Your task to perform on an android device: visit the assistant section in the google photos Image 0: 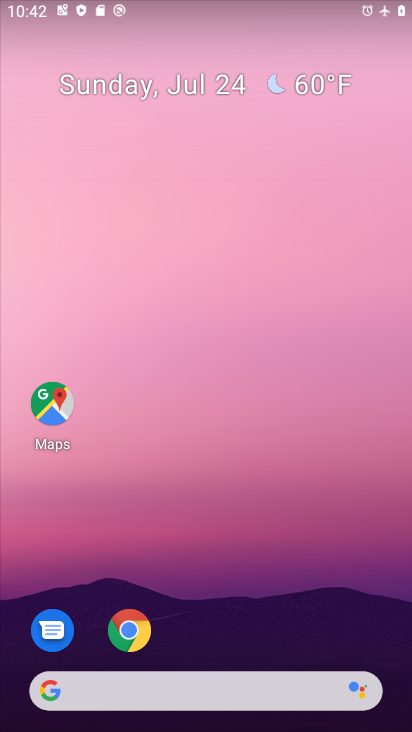
Step 0: drag from (209, 646) to (224, 95)
Your task to perform on an android device: visit the assistant section in the google photos Image 1: 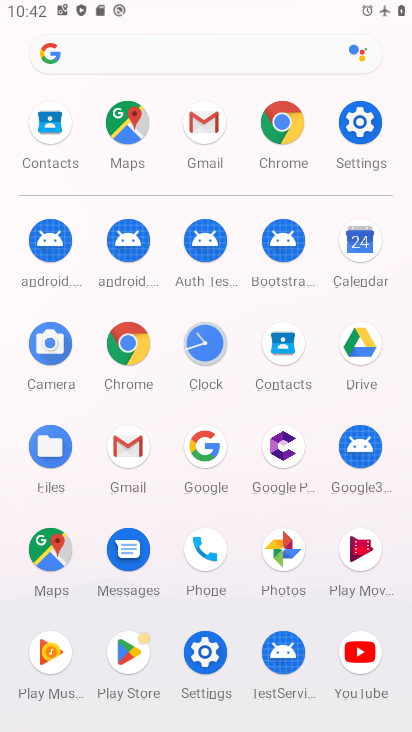
Step 1: click (290, 565)
Your task to perform on an android device: visit the assistant section in the google photos Image 2: 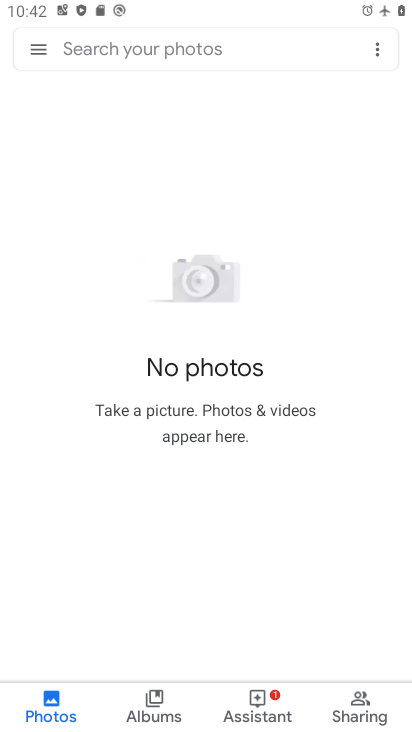
Step 2: click (255, 712)
Your task to perform on an android device: visit the assistant section in the google photos Image 3: 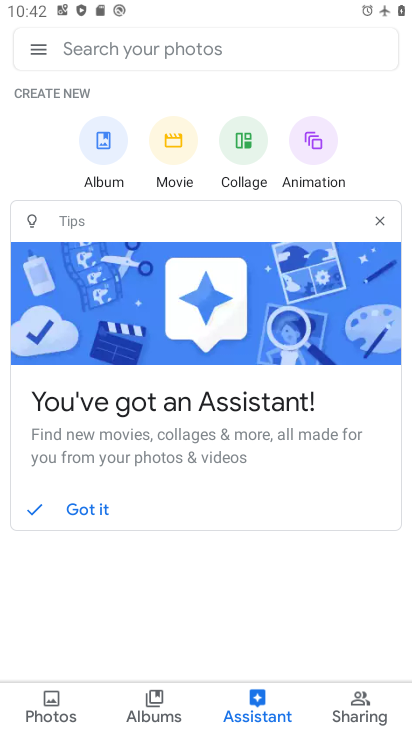
Step 3: task complete